Your task to perform on an android device: Open calendar and show me the third week of next month Image 0: 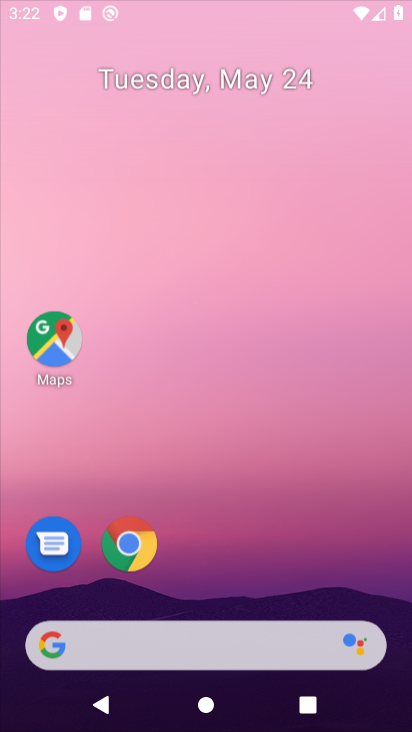
Step 0: drag from (213, 471) to (310, 11)
Your task to perform on an android device: Open calendar and show me the third week of next month Image 1: 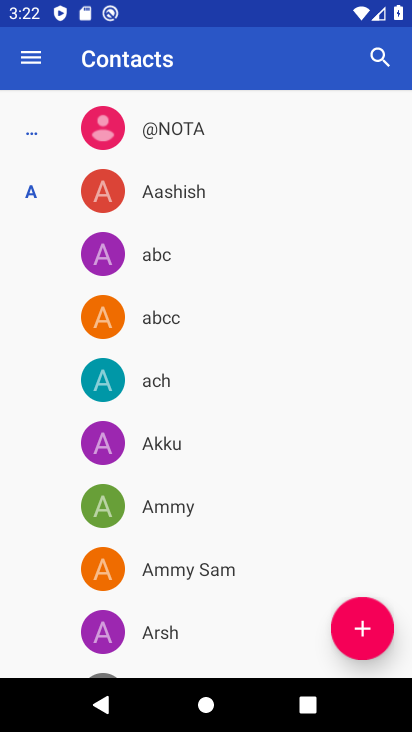
Step 1: press home button
Your task to perform on an android device: Open calendar and show me the third week of next month Image 2: 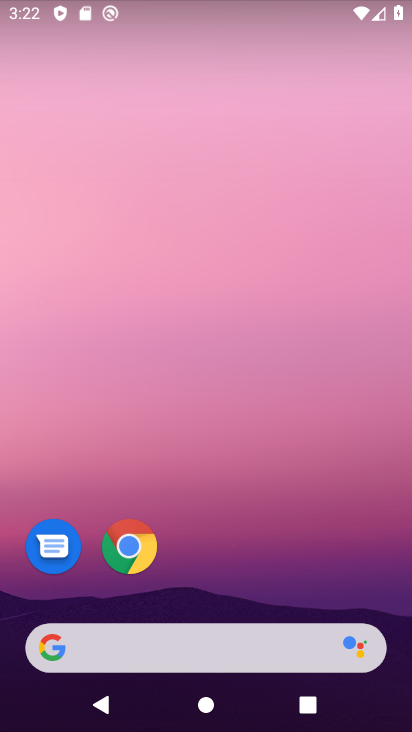
Step 2: drag from (145, 616) to (266, 109)
Your task to perform on an android device: Open calendar and show me the third week of next month Image 3: 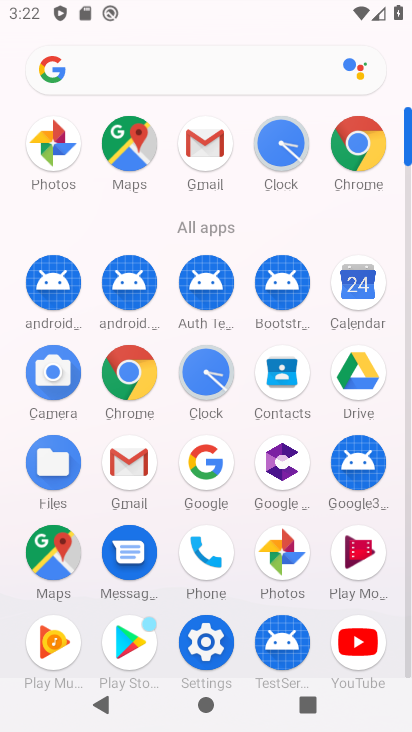
Step 3: drag from (120, 621) to (214, 426)
Your task to perform on an android device: Open calendar and show me the third week of next month Image 4: 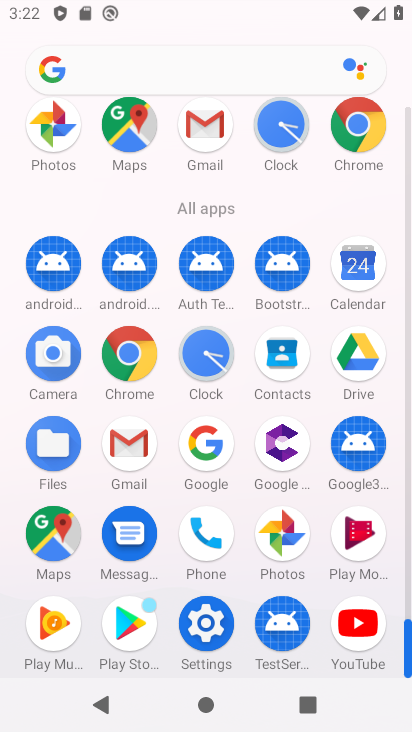
Step 4: click (354, 277)
Your task to perform on an android device: Open calendar and show me the third week of next month Image 5: 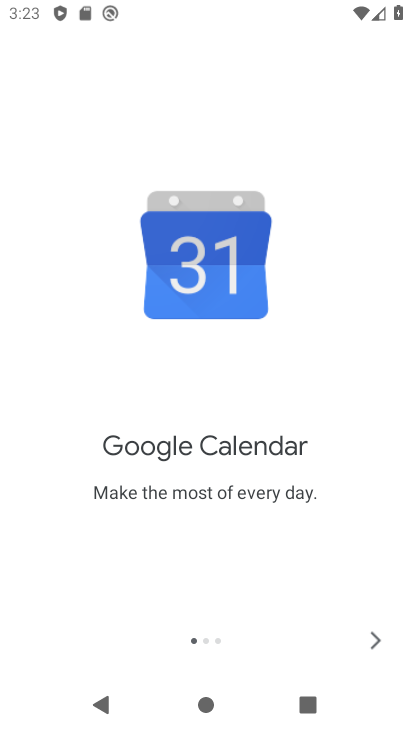
Step 5: click (375, 652)
Your task to perform on an android device: Open calendar and show me the third week of next month Image 6: 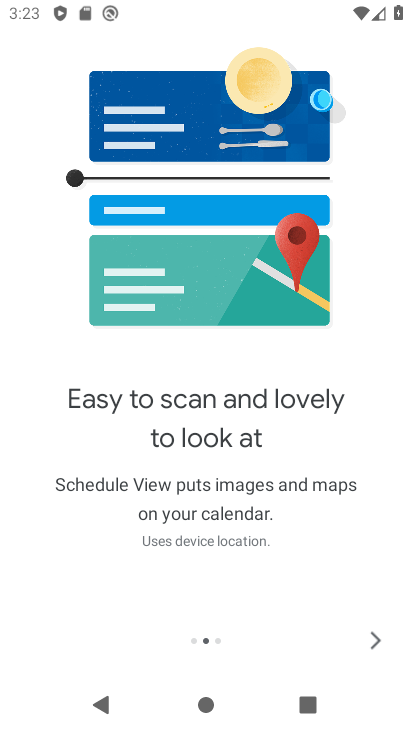
Step 6: click (372, 651)
Your task to perform on an android device: Open calendar and show me the third week of next month Image 7: 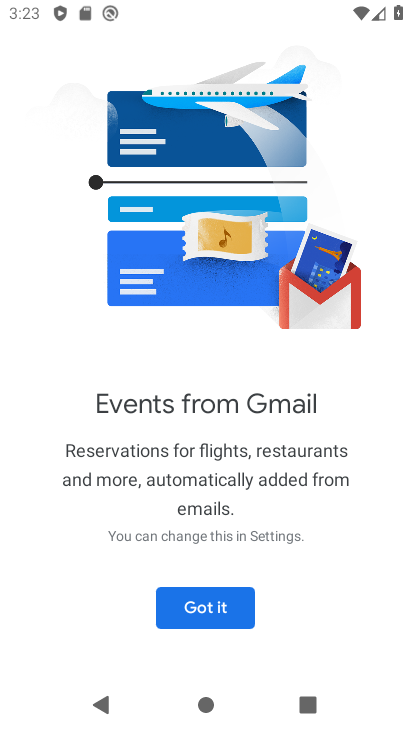
Step 7: click (183, 597)
Your task to perform on an android device: Open calendar and show me the third week of next month Image 8: 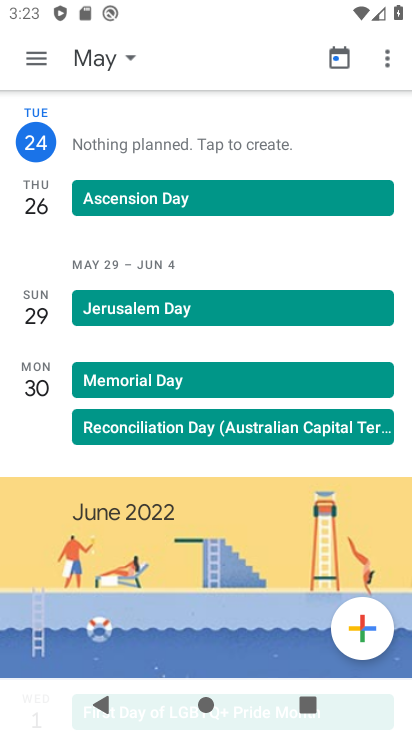
Step 8: click (112, 67)
Your task to perform on an android device: Open calendar and show me the third week of next month Image 9: 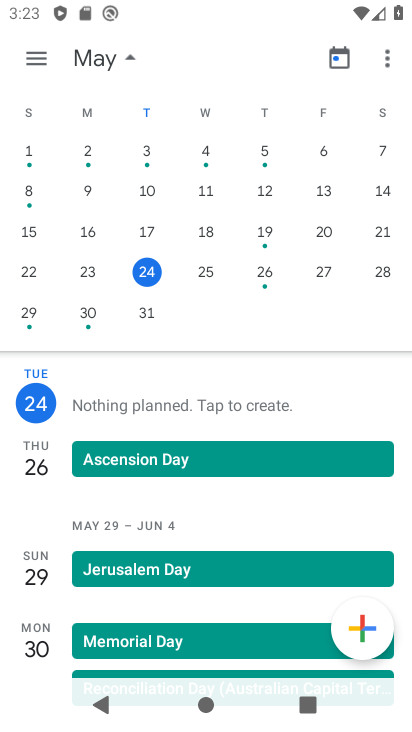
Step 9: drag from (360, 294) to (20, 290)
Your task to perform on an android device: Open calendar and show me the third week of next month Image 10: 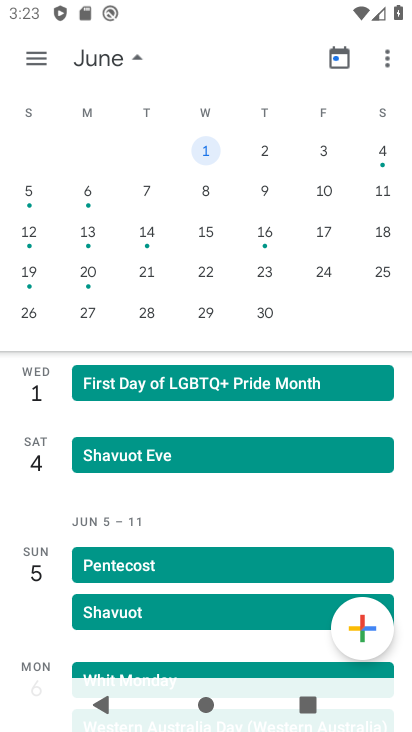
Step 10: click (33, 280)
Your task to perform on an android device: Open calendar and show me the third week of next month Image 11: 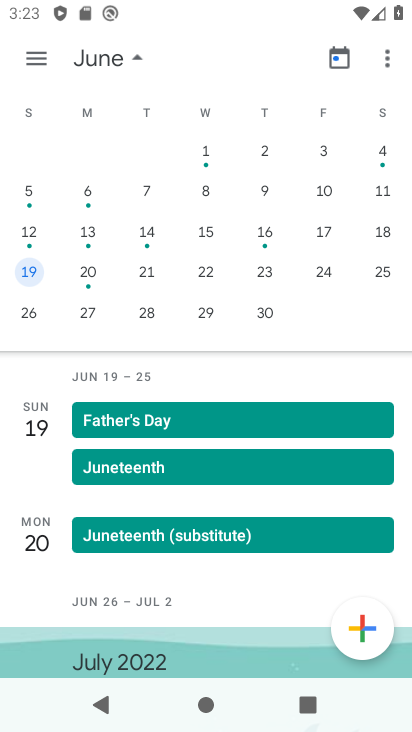
Step 11: click (47, 60)
Your task to perform on an android device: Open calendar and show me the third week of next month Image 12: 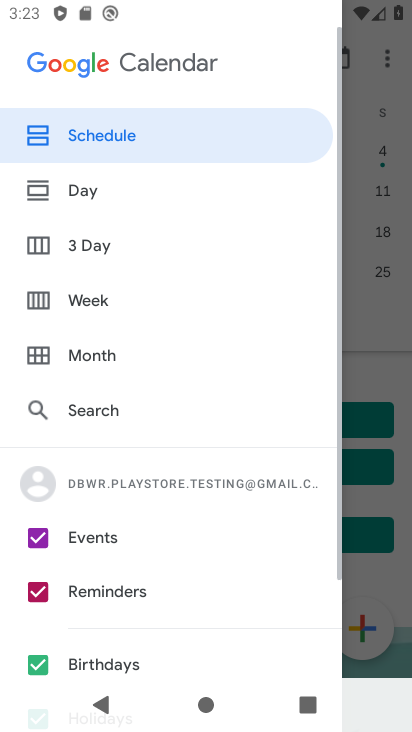
Step 12: click (140, 311)
Your task to perform on an android device: Open calendar and show me the third week of next month Image 13: 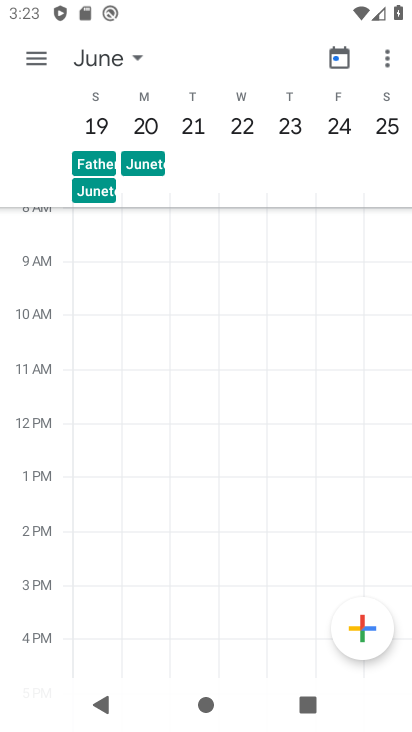
Step 13: task complete